Your task to perform on an android device: turn notification dots off Image 0: 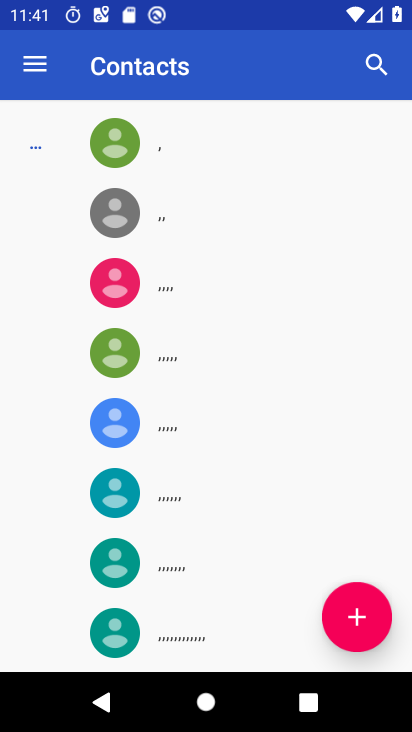
Step 0: press home button
Your task to perform on an android device: turn notification dots off Image 1: 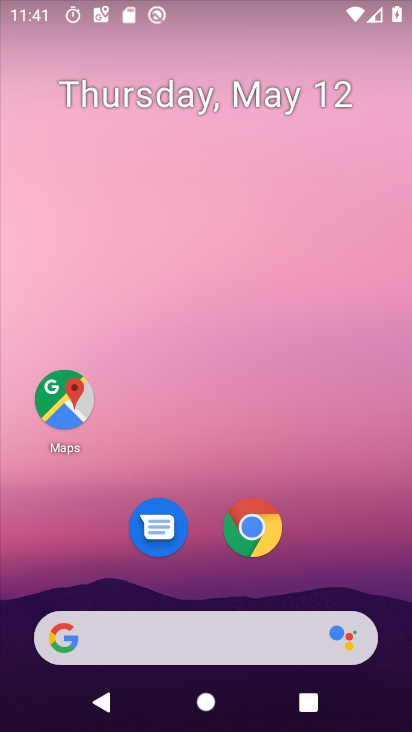
Step 1: drag from (322, 590) to (243, 143)
Your task to perform on an android device: turn notification dots off Image 2: 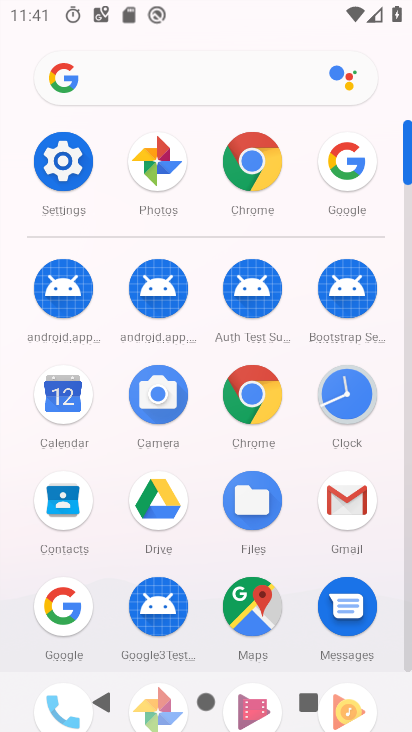
Step 2: click (56, 164)
Your task to perform on an android device: turn notification dots off Image 3: 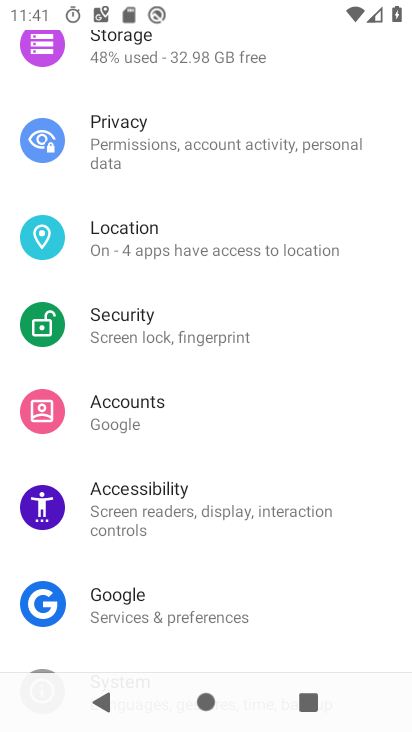
Step 3: drag from (204, 232) to (235, 650)
Your task to perform on an android device: turn notification dots off Image 4: 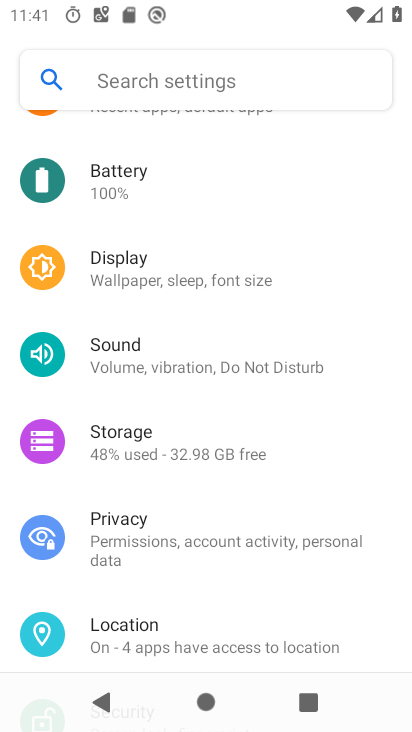
Step 4: drag from (208, 237) to (196, 618)
Your task to perform on an android device: turn notification dots off Image 5: 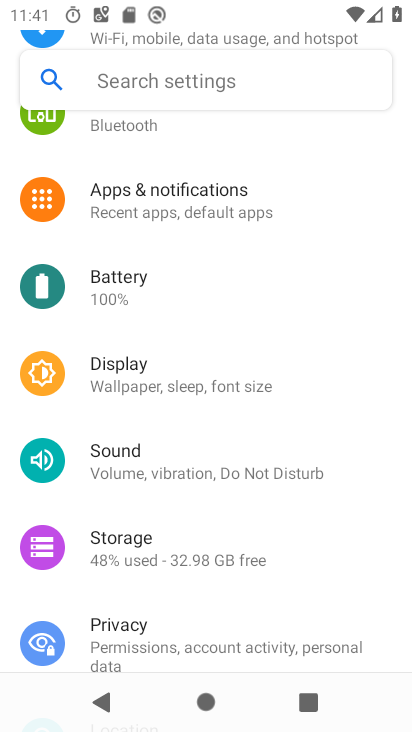
Step 5: click (182, 205)
Your task to perform on an android device: turn notification dots off Image 6: 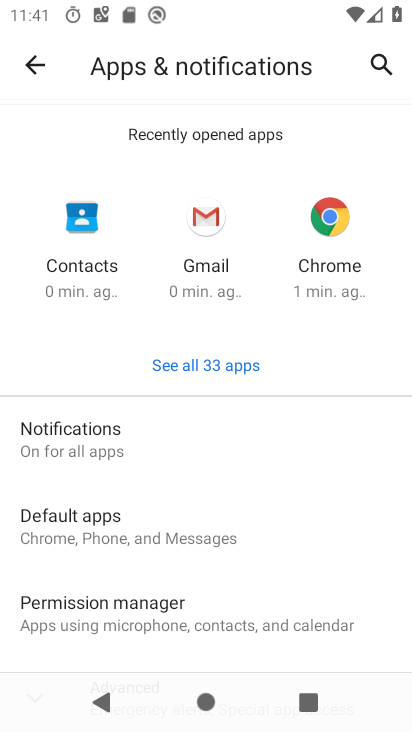
Step 6: click (100, 455)
Your task to perform on an android device: turn notification dots off Image 7: 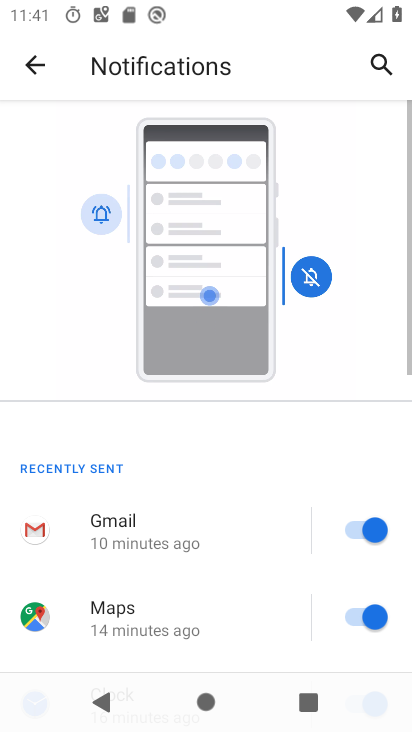
Step 7: drag from (207, 592) to (212, 167)
Your task to perform on an android device: turn notification dots off Image 8: 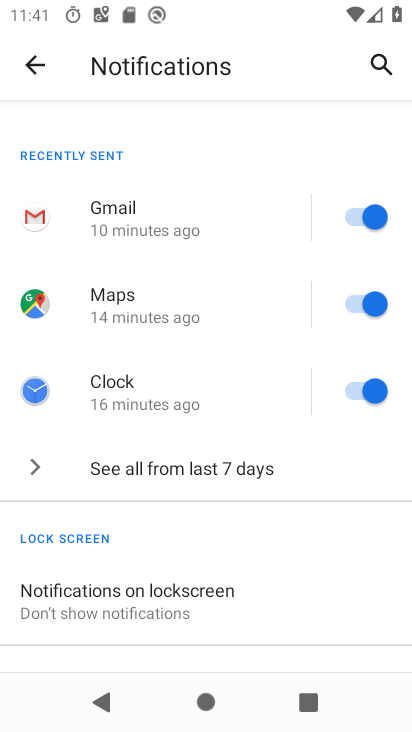
Step 8: drag from (219, 613) to (238, 177)
Your task to perform on an android device: turn notification dots off Image 9: 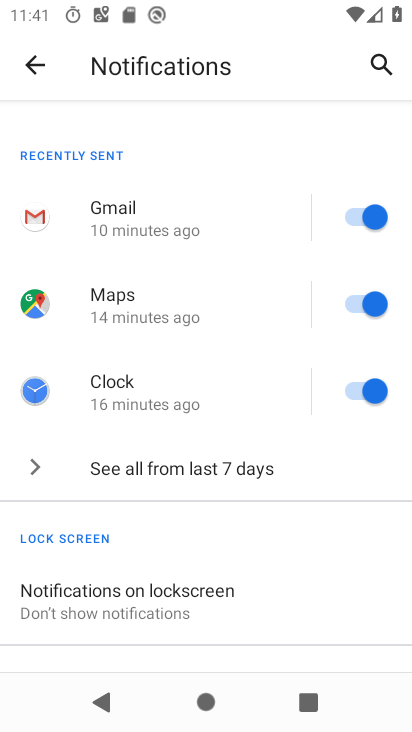
Step 9: drag from (214, 514) to (229, 108)
Your task to perform on an android device: turn notification dots off Image 10: 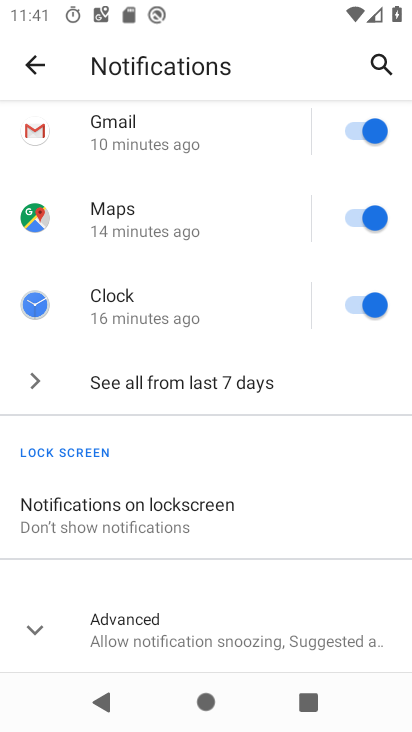
Step 10: click (147, 640)
Your task to perform on an android device: turn notification dots off Image 11: 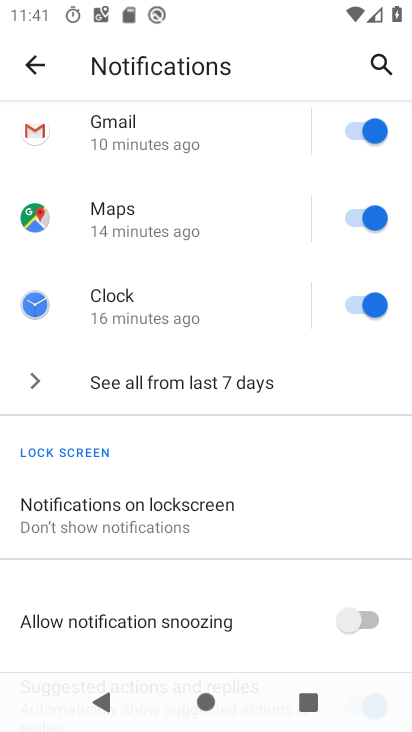
Step 11: drag from (181, 605) to (222, 296)
Your task to perform on an android device: turn notification dots off Image 12: 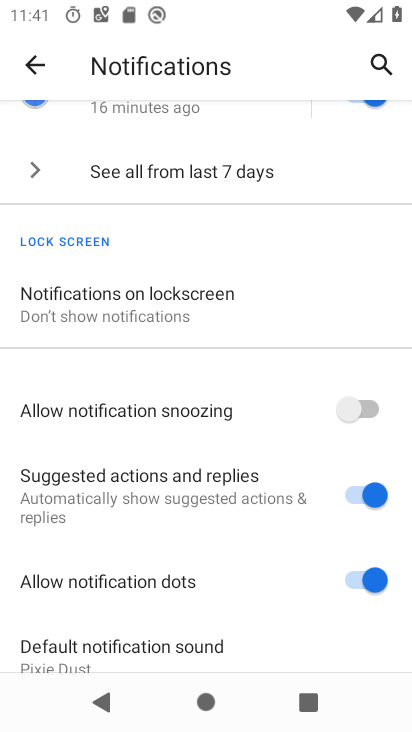
Step 12: click (369, 583)
Your task to perform on an android device: turn notification dots off Image 13: 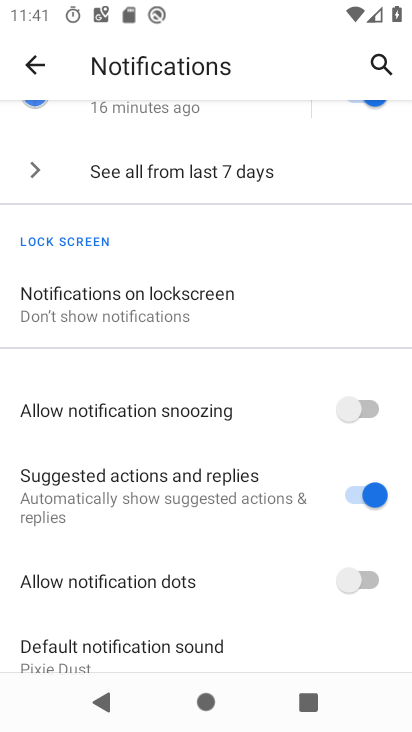
Step 13: task complete